Your task to perform on an android device: change the clock display to show seconds Image 0: 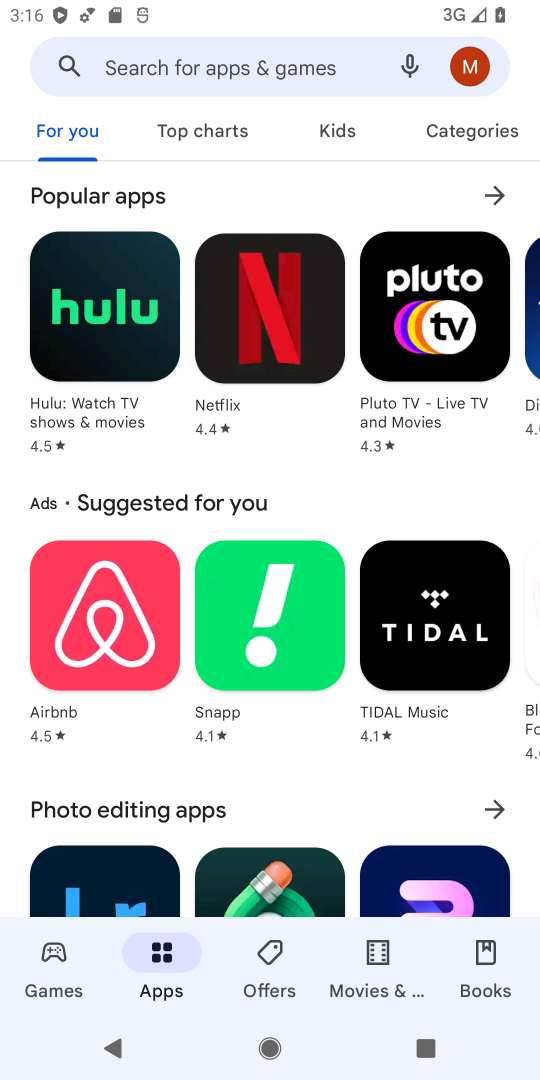
Step 0: press home button
Your task to perform on an android device: change the clock display to show seconds Image 1: 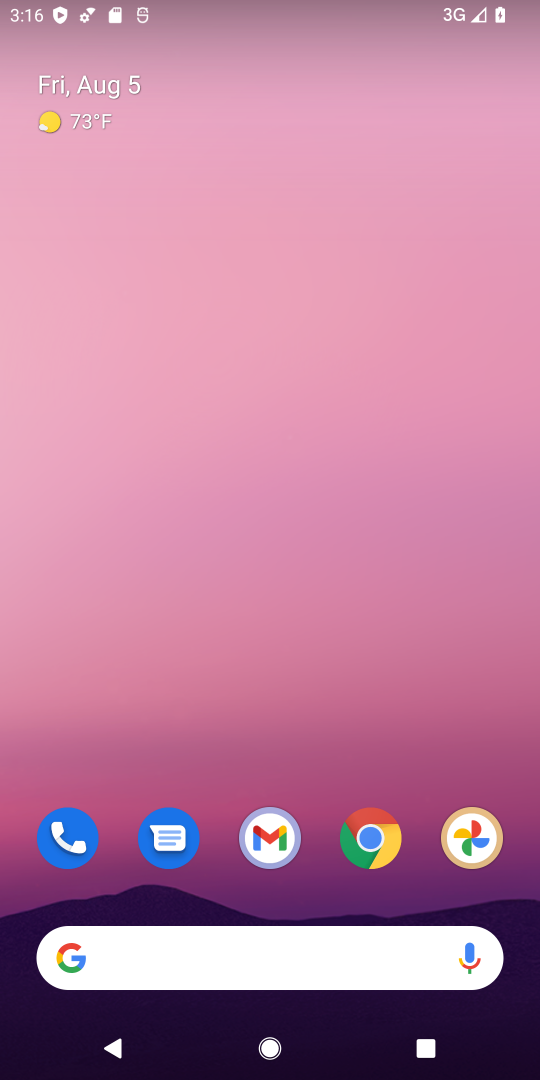
Step 1: drag from (226, 914) to (313, 231)
Your task to perform on an android device: change the clock display to show seconds Image 2: 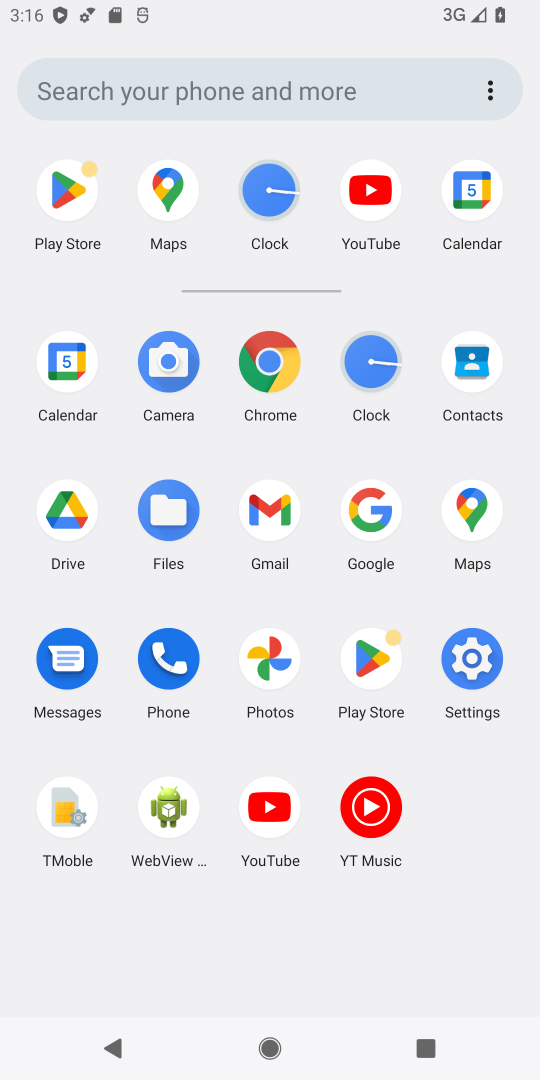
Step 2: click (365, 354)
Your task to perform on an android device: change the clock display to show seconds Image 3: 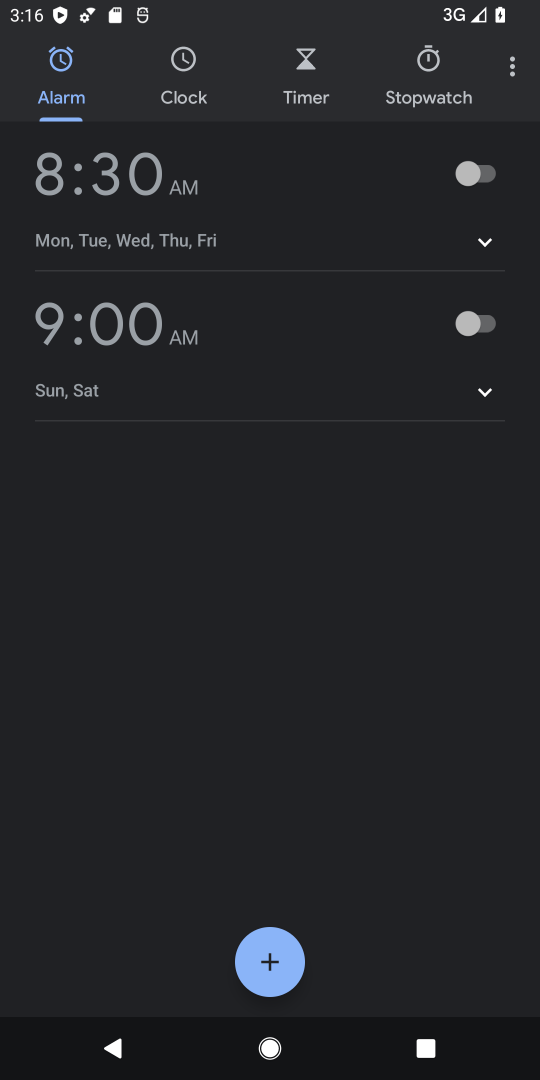
Step 3: click (512, 61)
Your task to perform on an android device: change the clock display to show seconds Image 4: 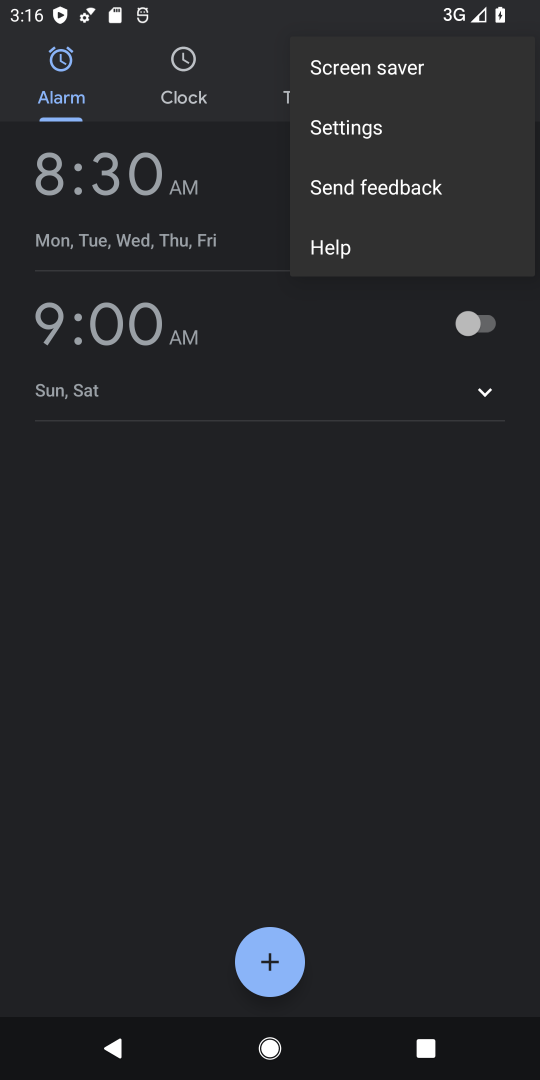
Step 4: click (332, 117)
Your task to perform on an android device: change the clock display to show seconds Image 5: 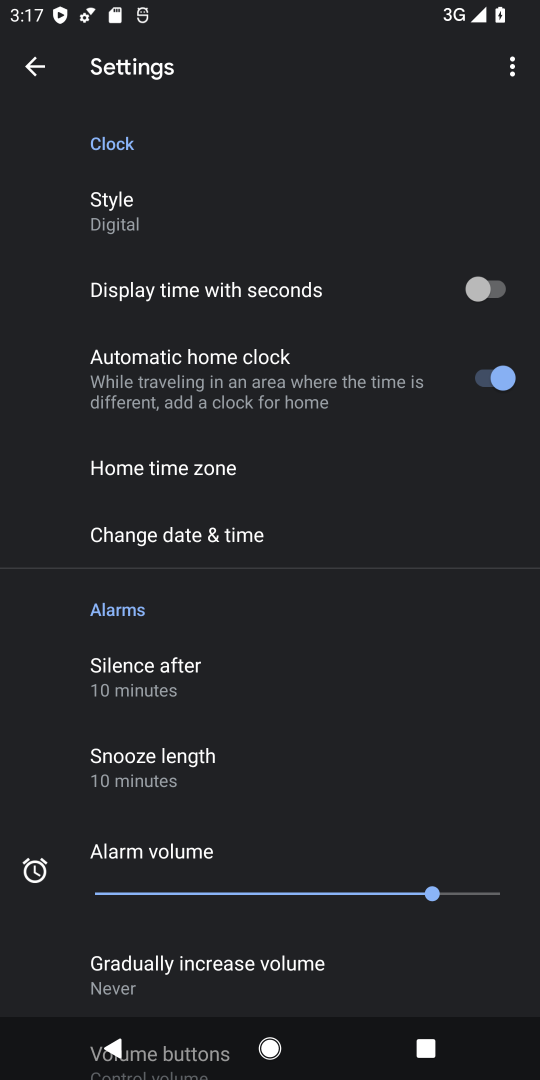
Step 5: click (486, 272)
Your task to perform on an android device: change the clock display to show seconds Image 6: 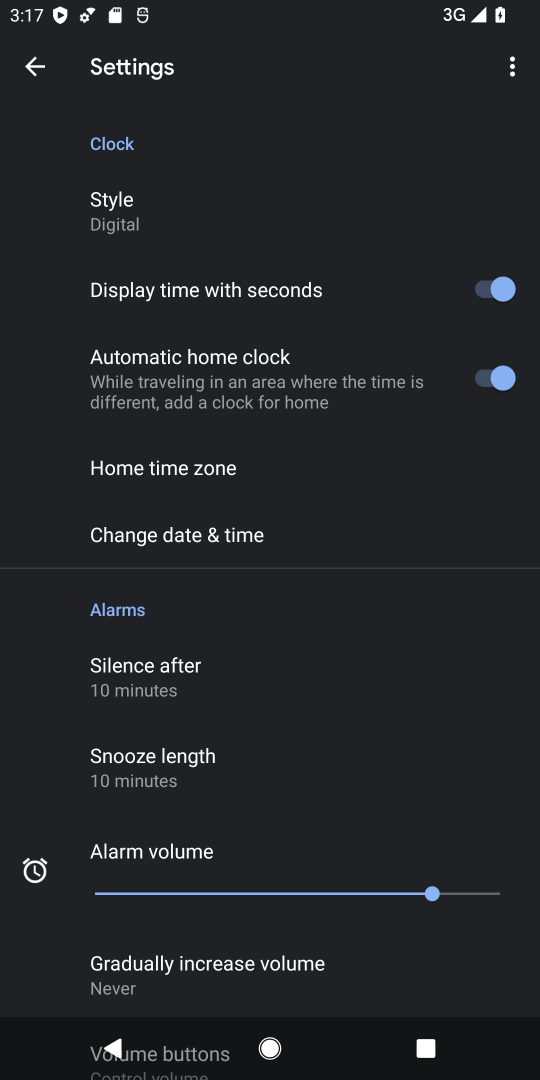
Step 6: task complete